Your task to perform on an android device: change your default location settings in chrome Image 0: 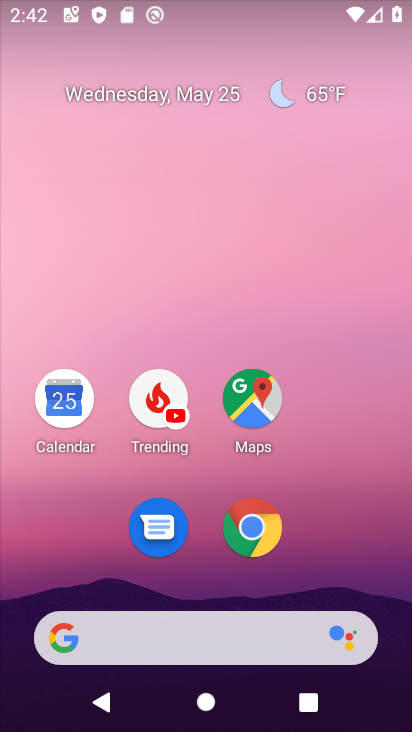
Step 0: drag from (262, 666) to (144, 87)
Your task to perform on an android device: change your default location settings in chrome Image 1: 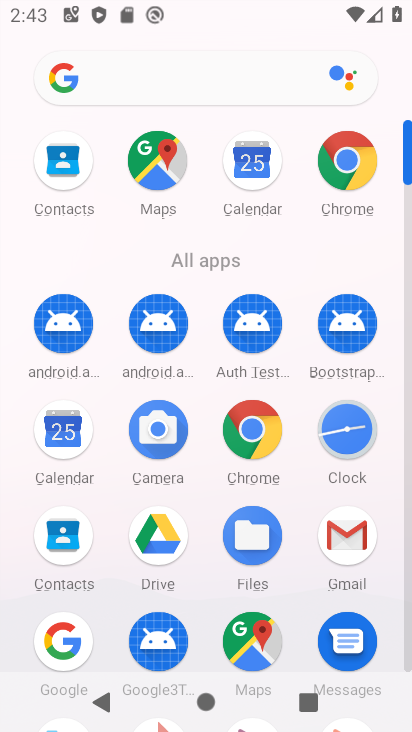
Step 1: click (341, 177)
Your task to perform on an android device: change your default location settings in chrome Image 2: 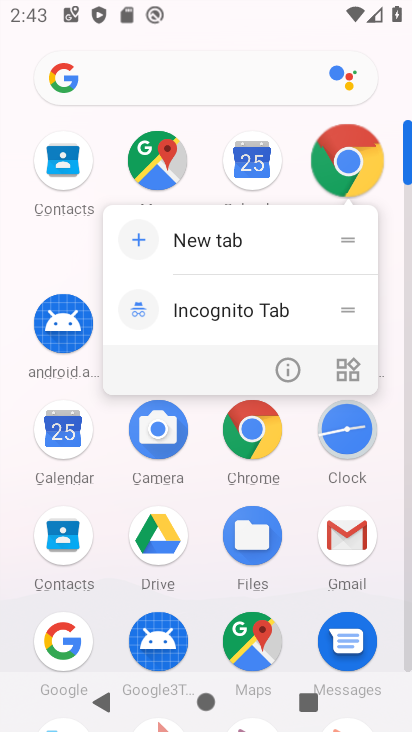
Step 2: click (341, 177)
Your task to perform on an android device: change your default location settings in chrome Image 3: 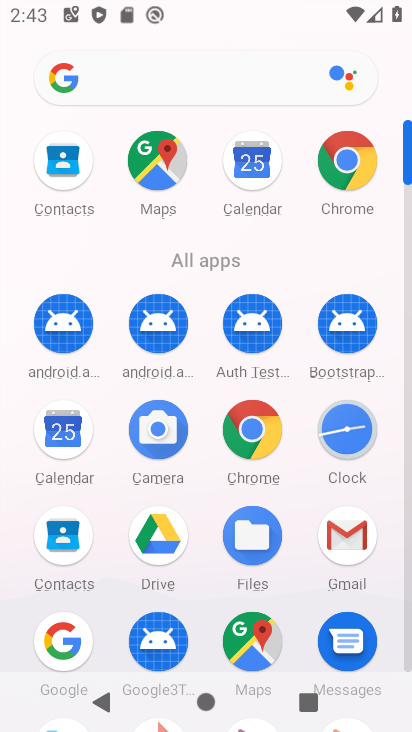
Step 3: click (341, 177)
Your task to perform on an android device: change your default location settings in chrome Image 4: 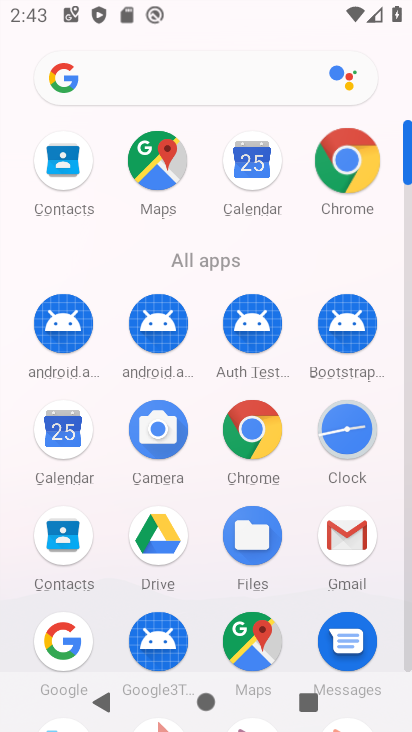
Step 4: click (343, 175)
Your task to perform on an android device: change your default location settings in chrome Image 5: 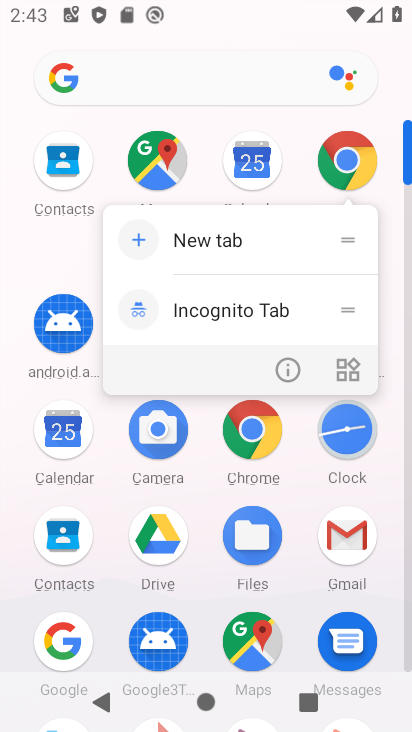
Step 5: click (343, 175)
Your task to perform on an android device: change your default location settings in chrome Image 6: 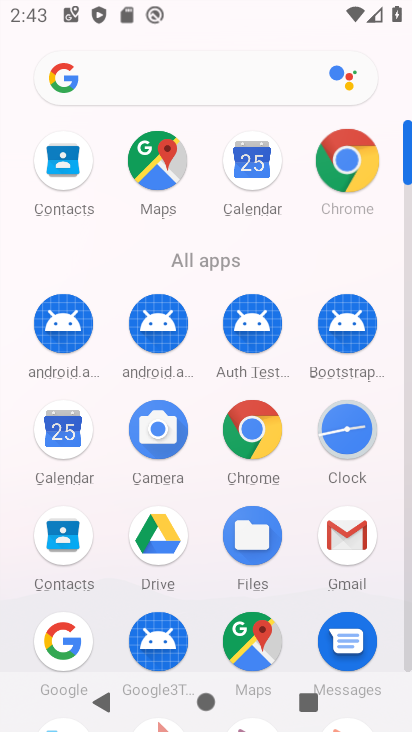
Step 6: click (343, 175)
Your task to perform on an android device: change your default location settings in chrome Image 7: 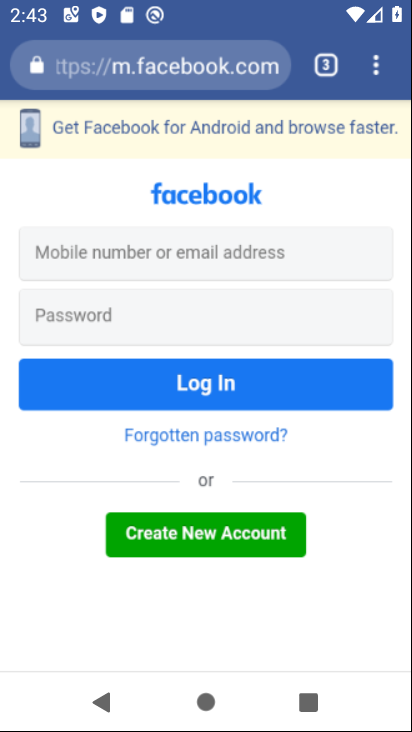
Step 7: click (346, 159)
Your task to perform on an android device: change your default location settings in chrome Image 8: 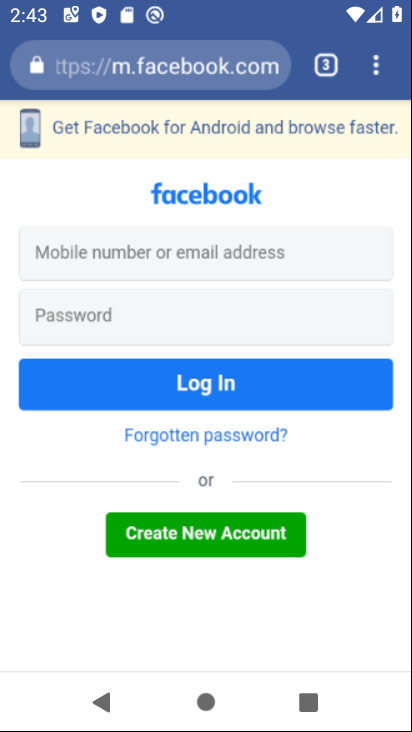
Step 8: click (346, 158)
Your task to perform on an android device: change your default location settings in chrome Image 9: 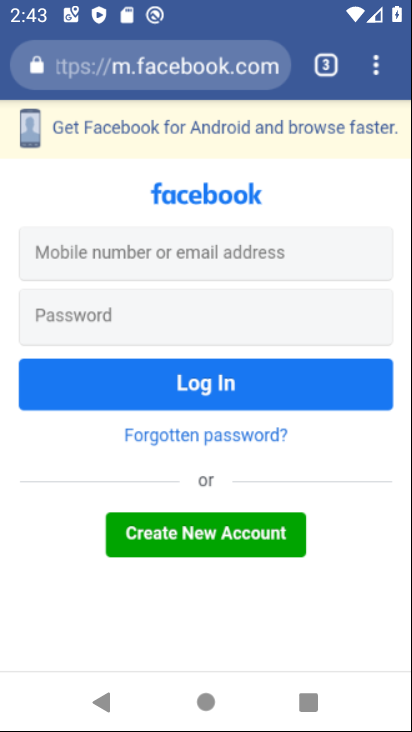
Step 9: click (371, 66)
Your task to perform on an android device: change your default location settings in chrome Image 10: 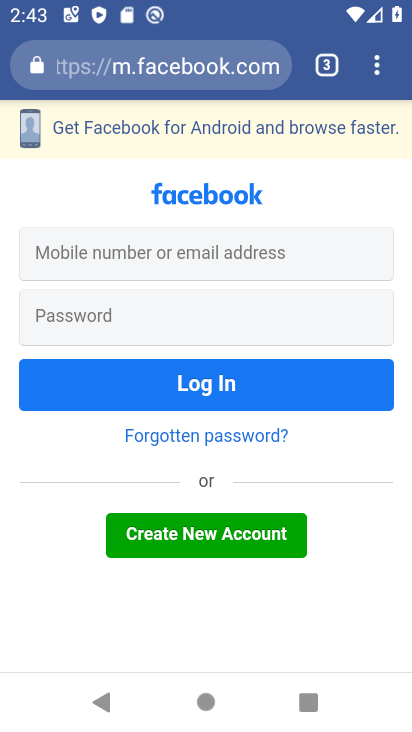
Step 10: click (373, 62)
Your task to perform on an android device: change your default location settings in chrome Image 11: 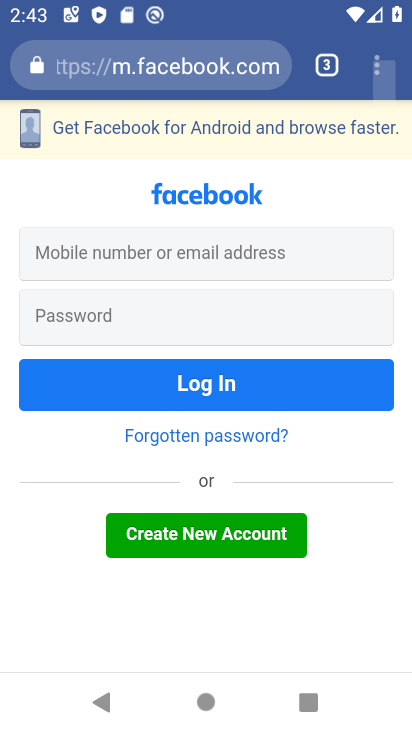
Step 11: click (373, 62)
Your task to perform on an android device: change your default location settings in chrome Image 12: 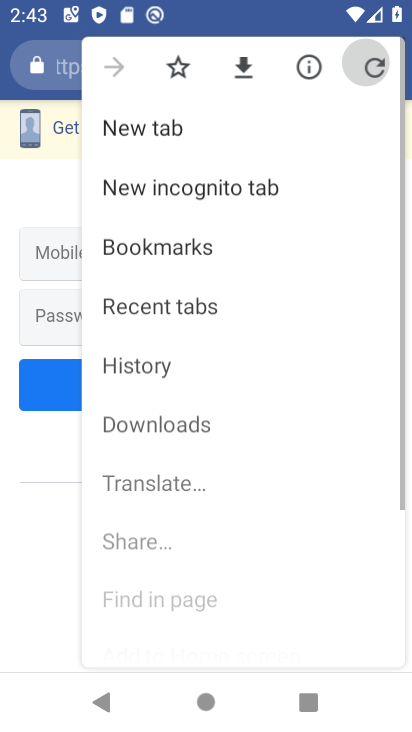
Step 12: click (373, 62)
Your task to perform on an android device: change your default location settings in chrome Image 13: 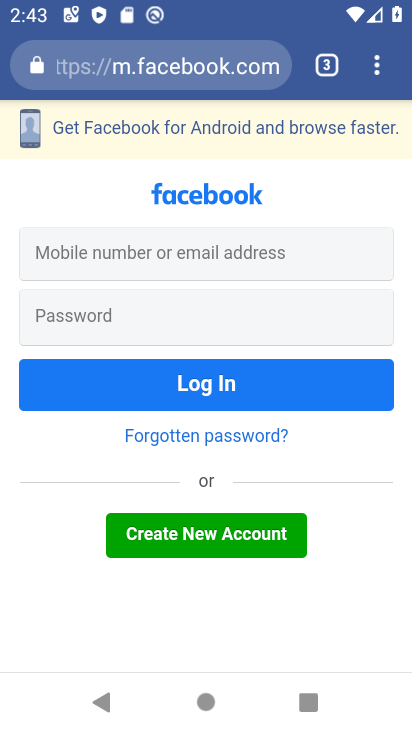
Step 13: click (369, 62)
Your task to perform on an android device: change your default location settings in chrome Image 14: 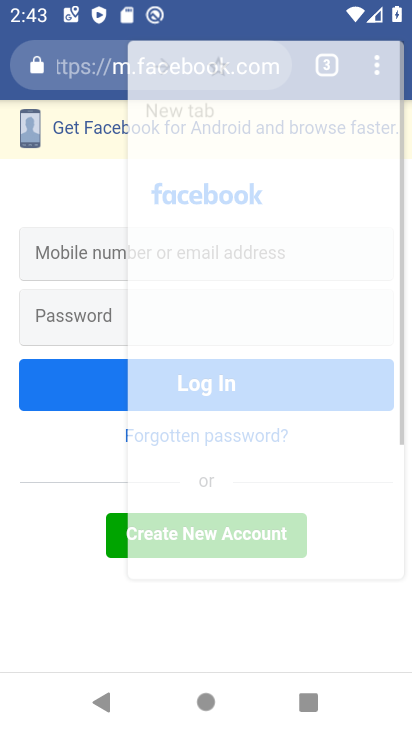
Step 14: click (371, 62)
Your task to perform on an android device: change your default location settings in chrome Image 15: 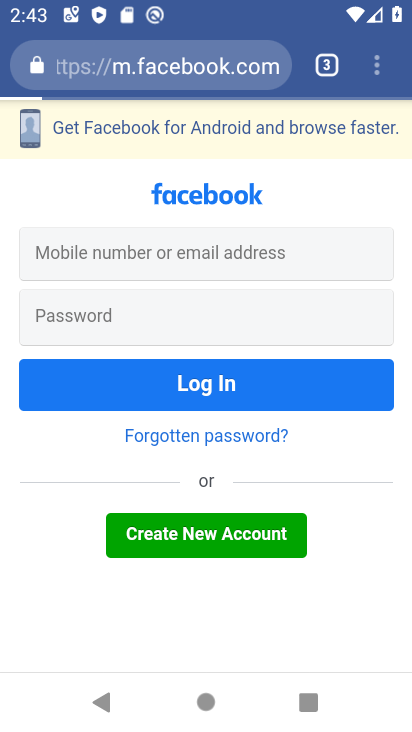
Step 15: click (371, 62)
Your task to perform on an android device: change your default location settings in chrome Image 16: 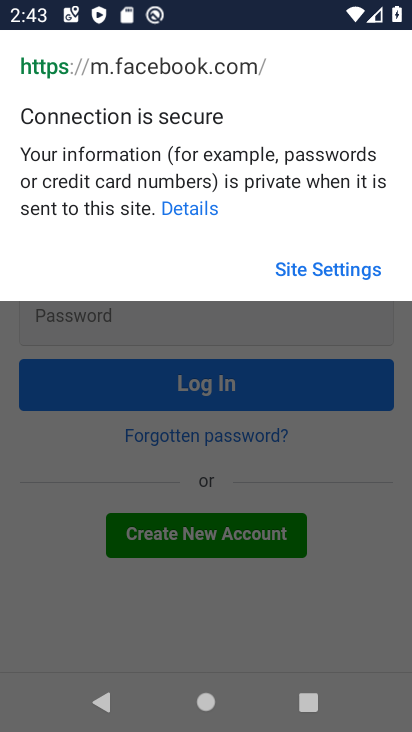
Step 16: click (315, 273)
Your task to perform on an android device: change your default location settings in chrome Image 17: 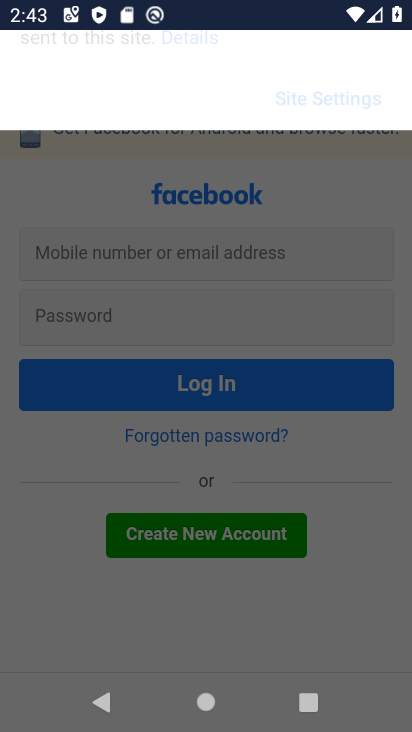
Step 17: click (315, 273)
Your task to perform on an android device: change your default location settings in chrome Image 18: 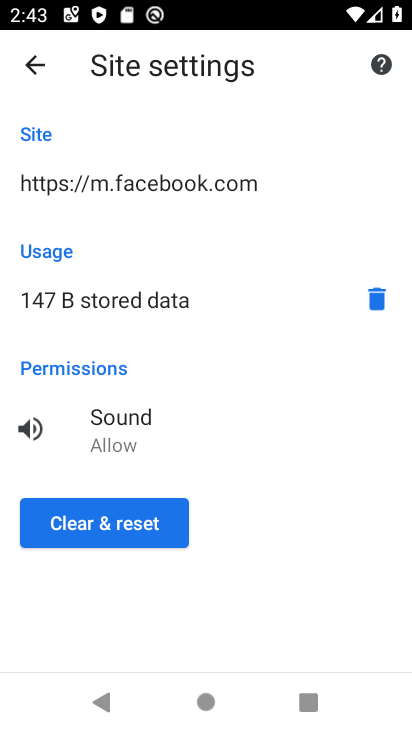
Step 18: click (27, 58)
Your task to perform on an android device: change your default location settings in chrome Image 19: 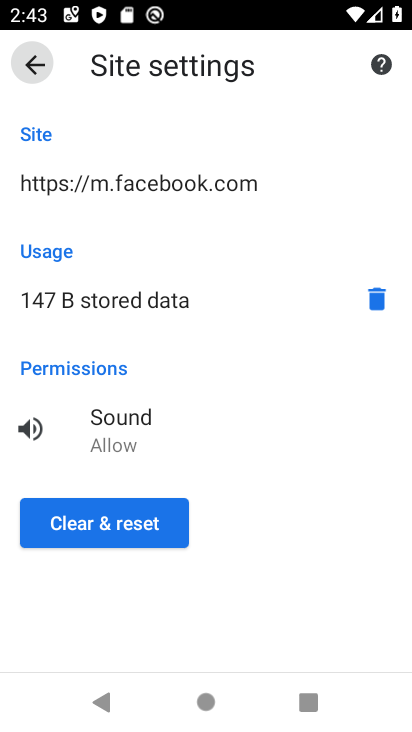
Step 19: click (26, 57)
Your task to perform on an android device: change your default location settings in chrome Image 20: 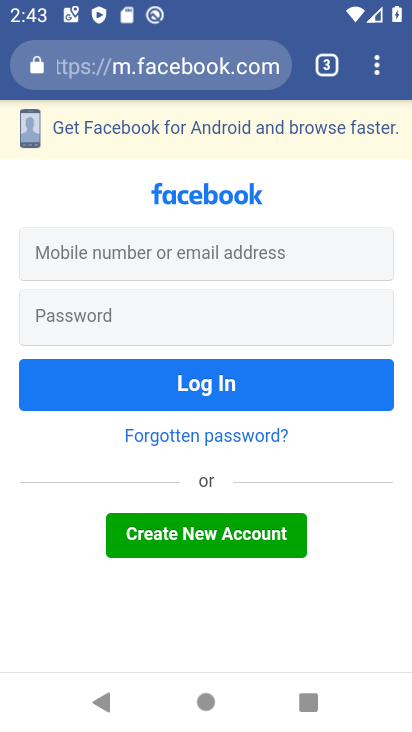
Step 20: drag from (377, 59) to (139, 566)
Your task to perform on an android device: change your default location settings in chrome Image 21: 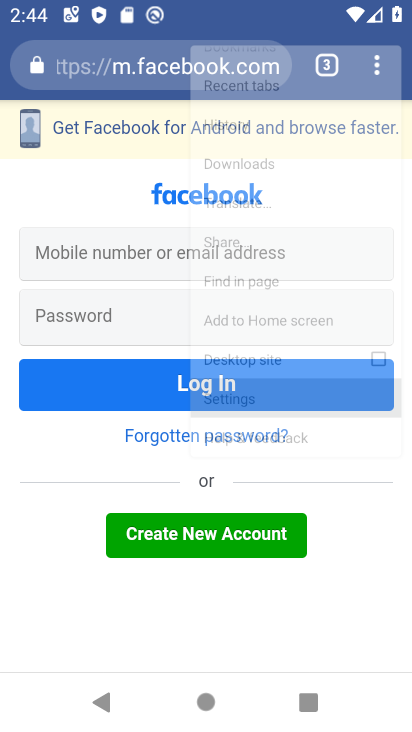
Step 21: click (139, 566)
Your task to perform on an android device: change your default location settings in chrome Image 22: 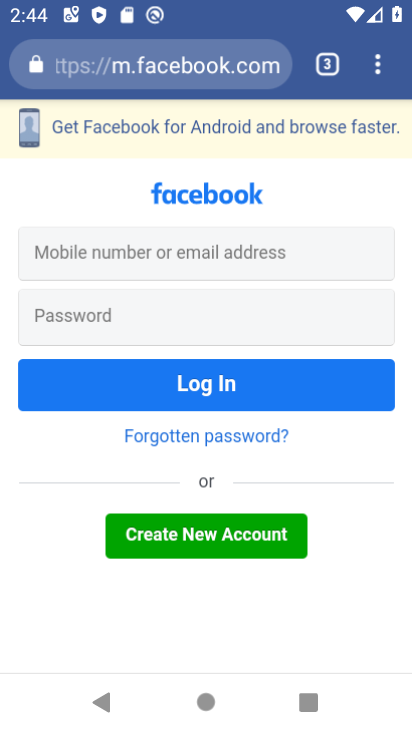
Step 22: click (139, 566)
Your task to perform on an android device: change your default location settings in chrome Image 23: 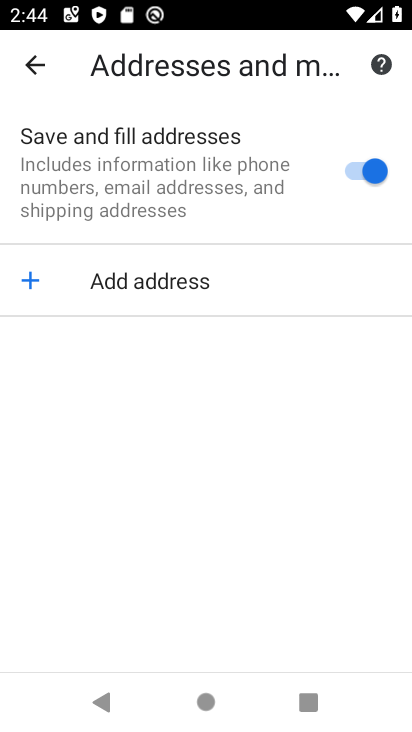
Step 23: click (35, 66)
Your task to perform on an android device: change your default location settings in chrome Image 24: 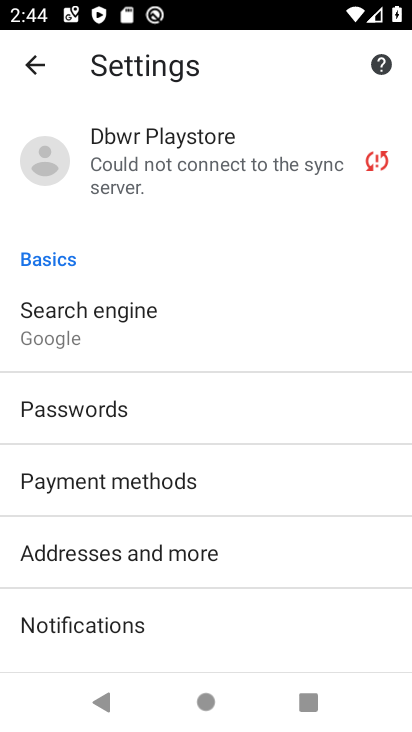
Step 24: drag from (156, 502) to (103, 142)
Your task to perform on an android device: change your default location settings in chrome Image 25: 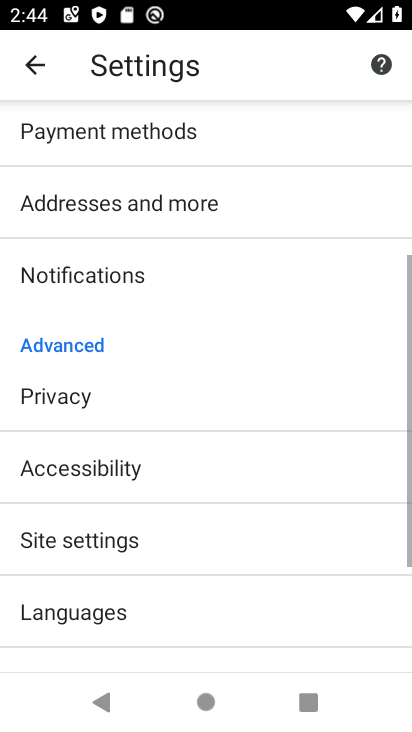
Step 25: drag from (182, 483) to (131, 159)
Your task to perform on an android device: change your default location settings in chrome Image 26: 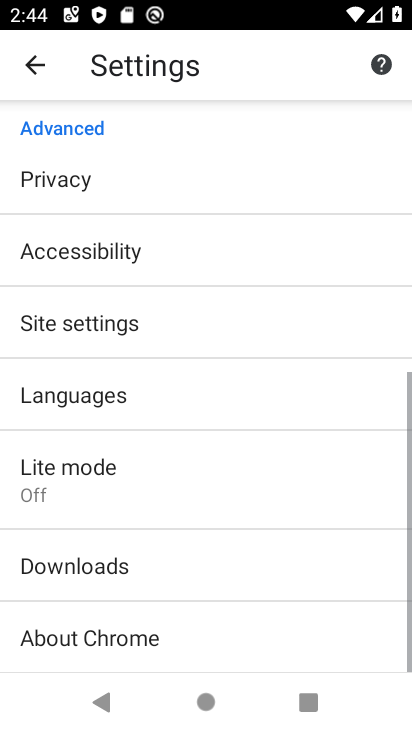
Step 26: drag from (209, 492) to (142, 21)
Your task to perform on an android device: change your default location settings in chrome Image 27: 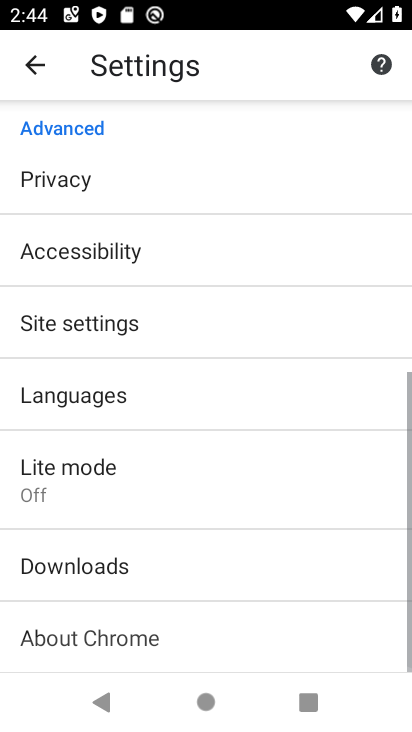
Step 27: drag from (227, 594) to (165, 156)
Your task to perform on an android device: change your default location settings in chrome Image 28: 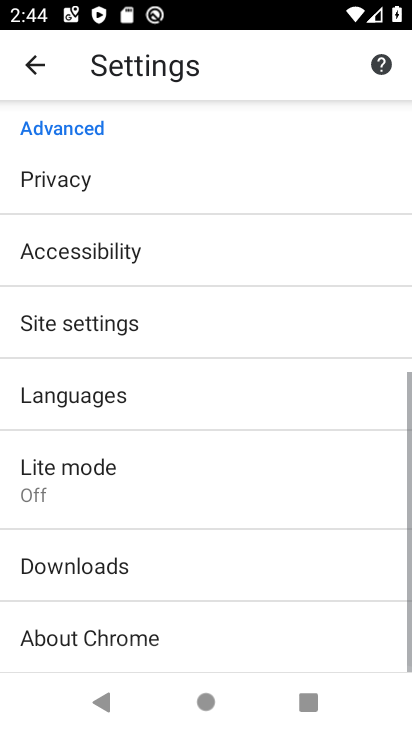
Step 28: drag from (184, 404) to (161, 142)
Your task to perform on an android device: change your default location settings in chrome Image 29: 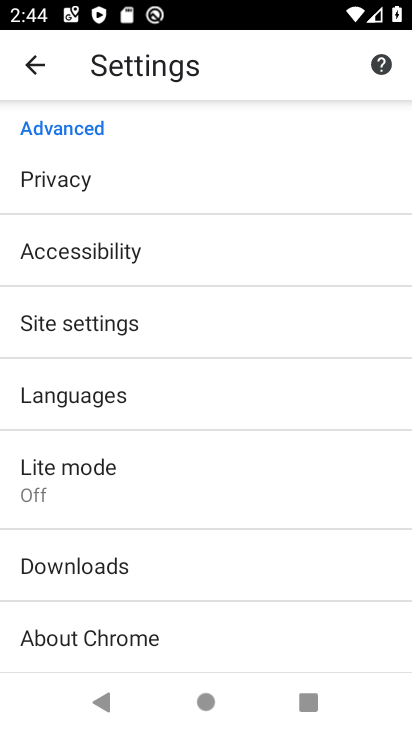
Step 29: drag from (162, 470) to (144, 169)
Your task to perform on an android device: change your default location settings in chrome Image 30: 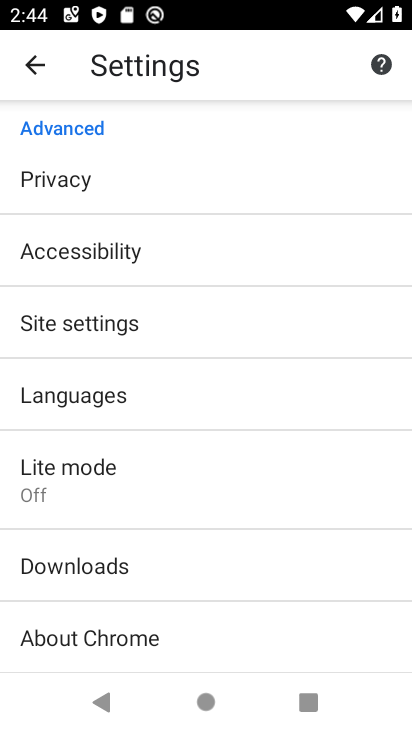
Step 30: drag from (150, 454) to (109, 184)
Your task to perform on an android device: change your default location settings in chrome Image 31: 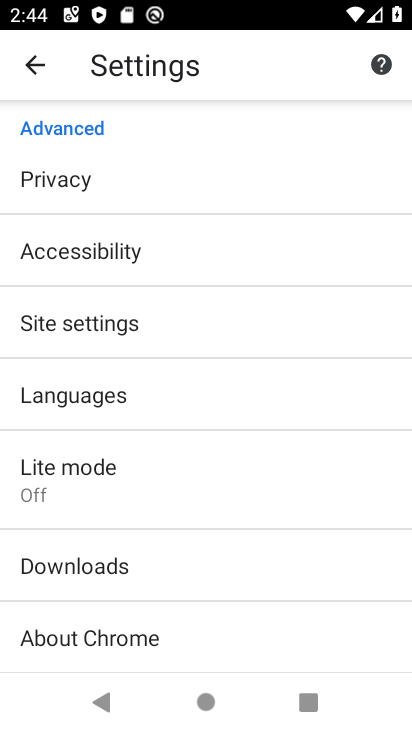
Step 31: click (61, 323)
Your task to perform on an android device: change your default location settings in chrome Image 32: 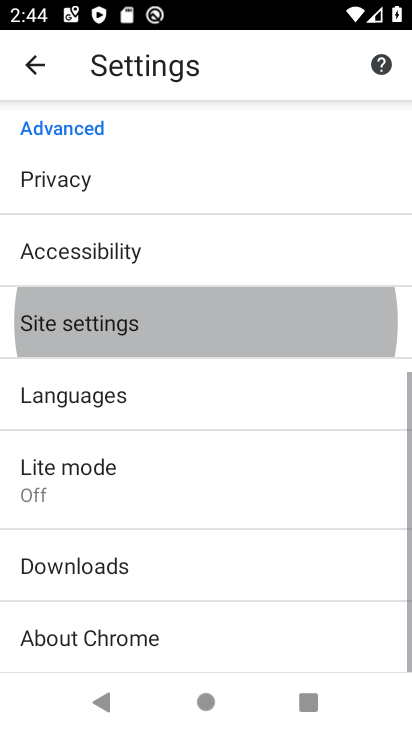
Step 32: click (61, 323)
Your task to perform on an android device: change your default location settings in chrome Image 33: 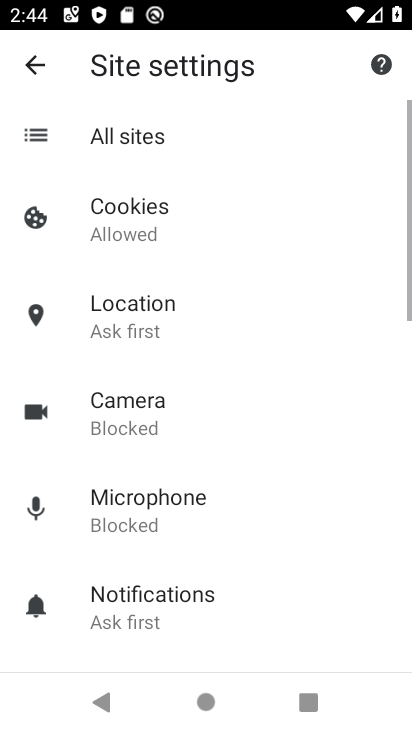
Step 33: click (61, 321)
Your task to perform on an android device: change your default location settings in chrome Image 34: 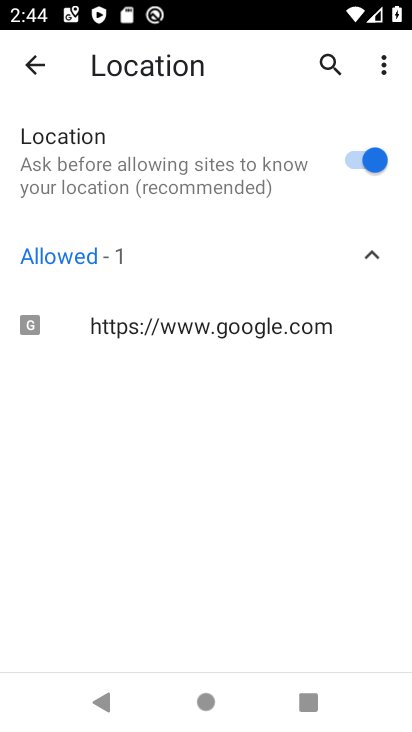
Step 34: task complete